Your task to perform on an android device: Open network settings Image 0: 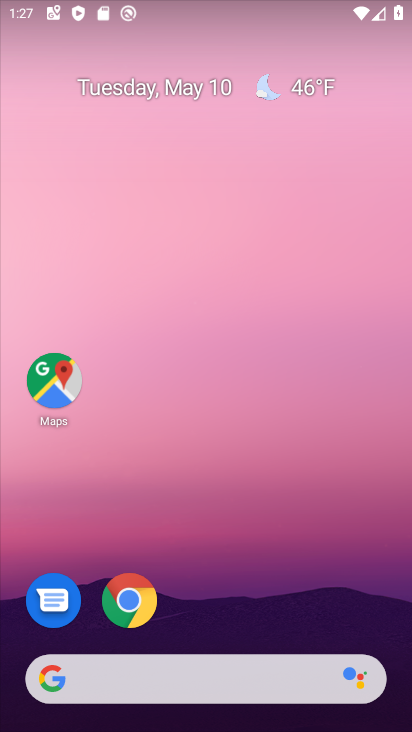
Step 0: press home button
Your task to perform on an android device: Open network settings Image 1: 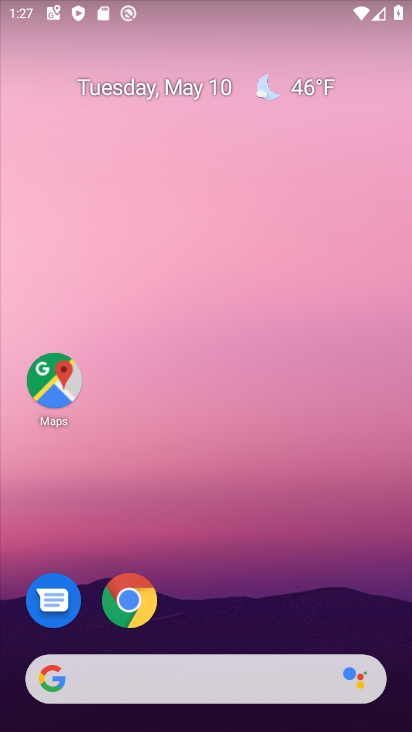
Step 1: drag from (163, 678) to (312, 146)
Your task to perform on an android device: Open network settings Image 2: 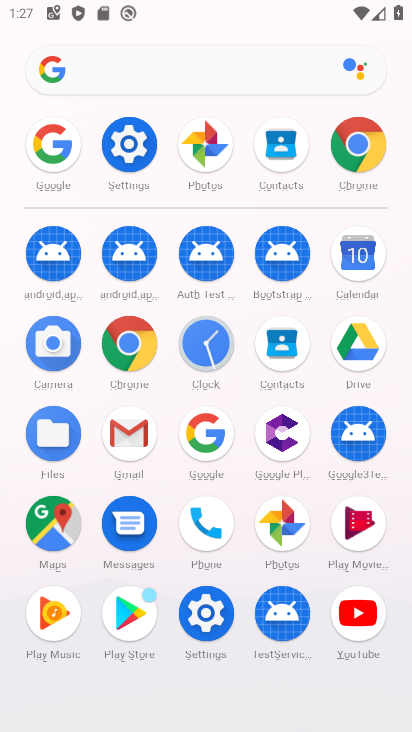
Step 2: click (127, 159)
Your task to perform on an android device: Open network settings Image 3: 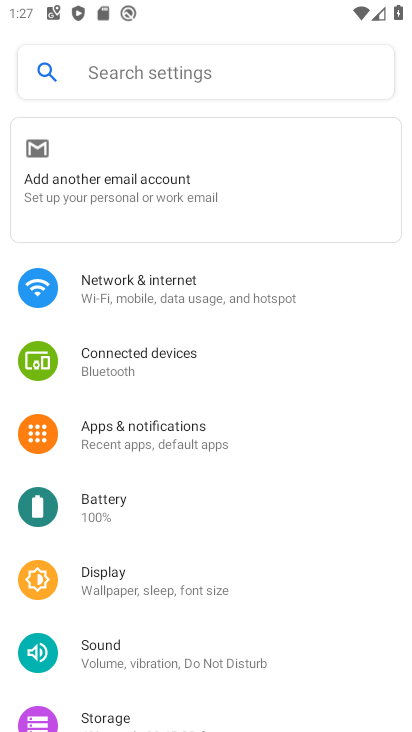
Step 3: click (148, 295)
Your task to perform on an android device: Open network settings Image 4: 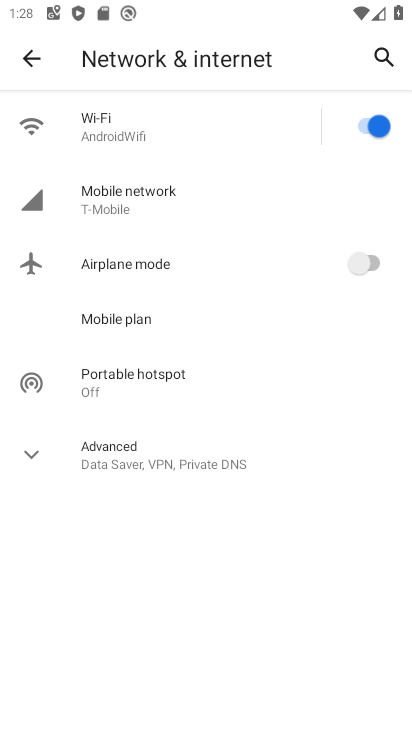
Step 4: task complete